Your task to perform on an android device: allow notifications from all sites in the chrome app Image 0: 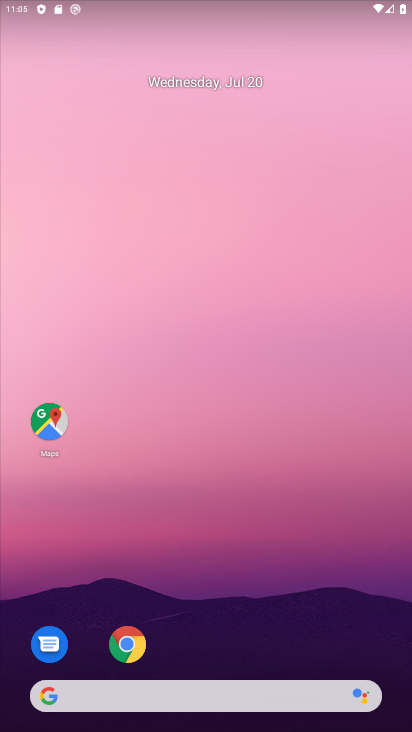
Step 0: click (132, 653)
Your task to perform on an android device: allow notifications from all sites in the chrome app Image 1: 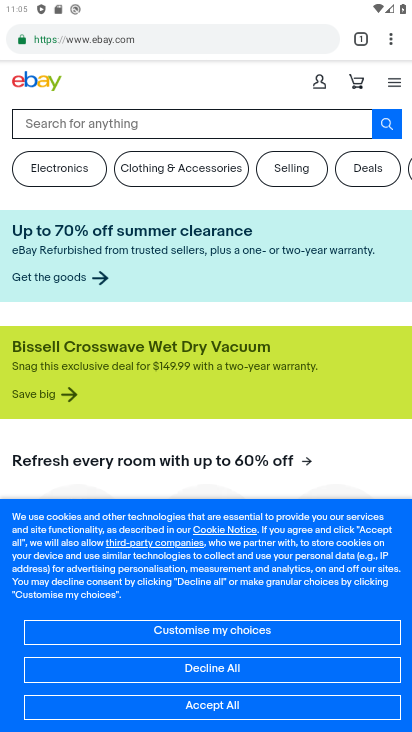
Step 1: click (396, 38)
Your task to perform on an android device: allow notifications from all sites in the chrome app Image 2: 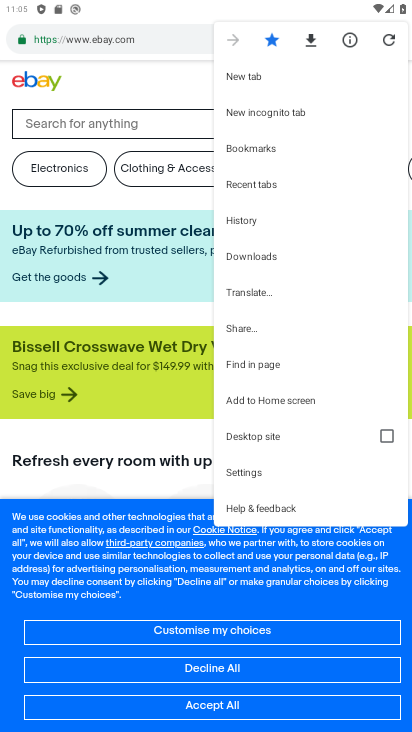
Step 2: click (322, 472)
Your task to perform on an android device: allow notifications from all sites in the chrome app Image 3: 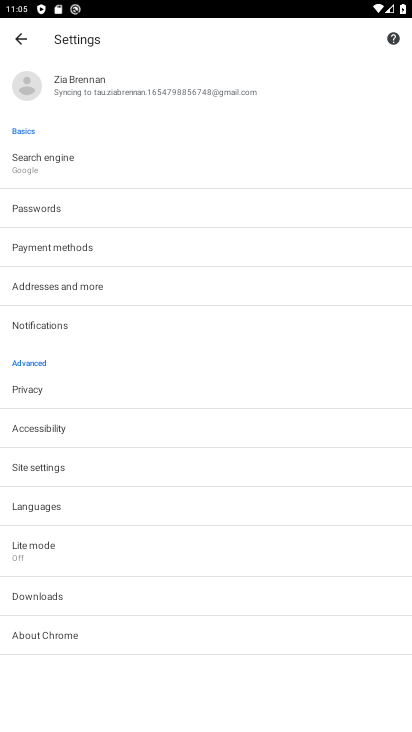
Step 3: click (70, 474)
Your task to perform on an android device: allow notifications from all sites in the chrome app Image 4: 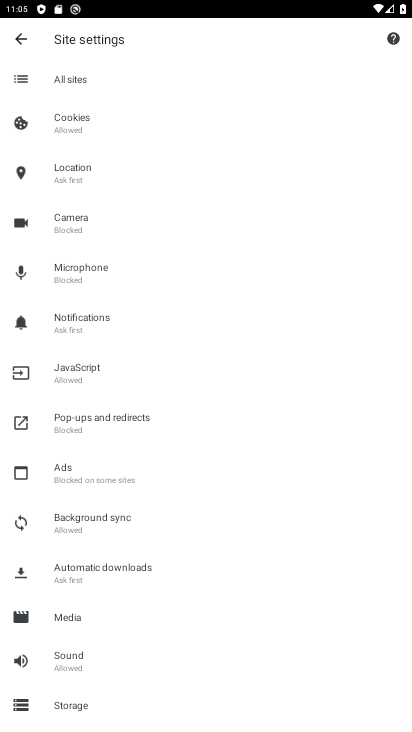
Step 4: click (103, 320)
Your task to perform on an android device: allow notifications from all sites in the chrome app Image 5: 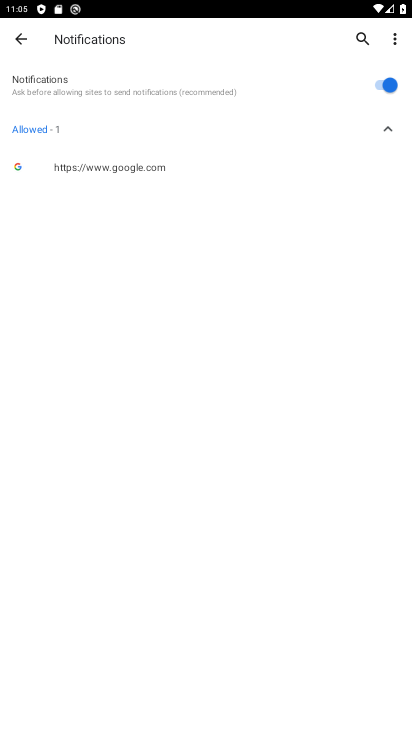
Step 5: task complete